Your task to perform on an android device: choose inbox layout in the gmail app Image 0: 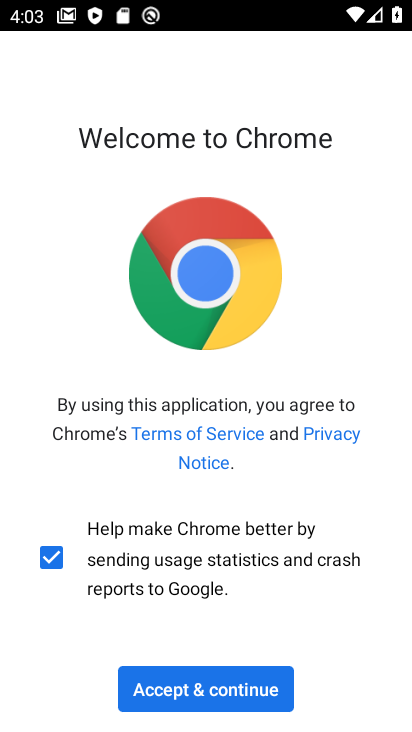
Step 0: press home button
Your task to perform on an android device: choose inbox layout in the gmail app Image 1: 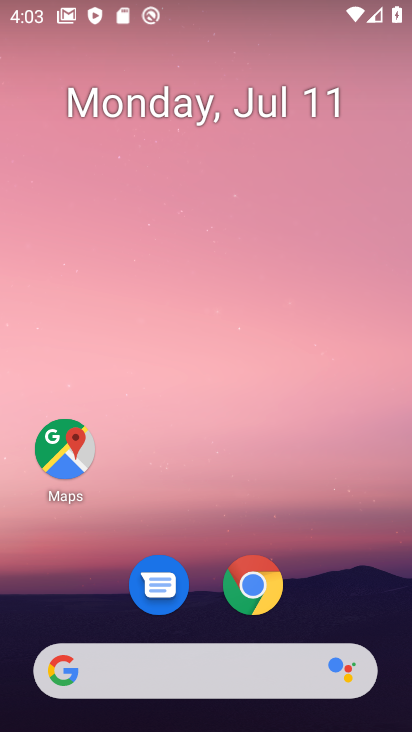
Step 1: drag from (345, 557) to (374, 29)
Your task to perform on an android device: choose inbox layout in the gmail app Image 2: 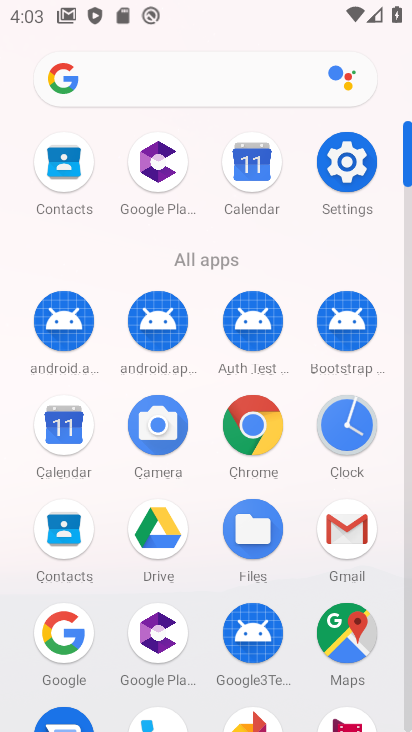
Step 2: click (336, 523)
Your task to perform on an android device: choose inbox layout in the gmail app Image 3: 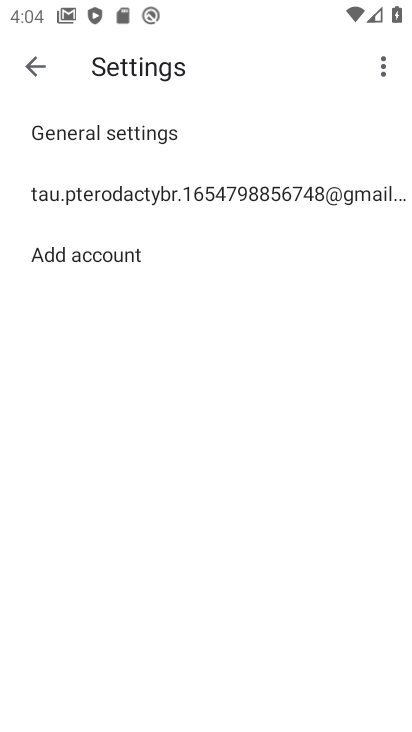
Step 3: click (221, 193)
Your task to perform on an android device: choose inbox layout in the gmail app Image 4: 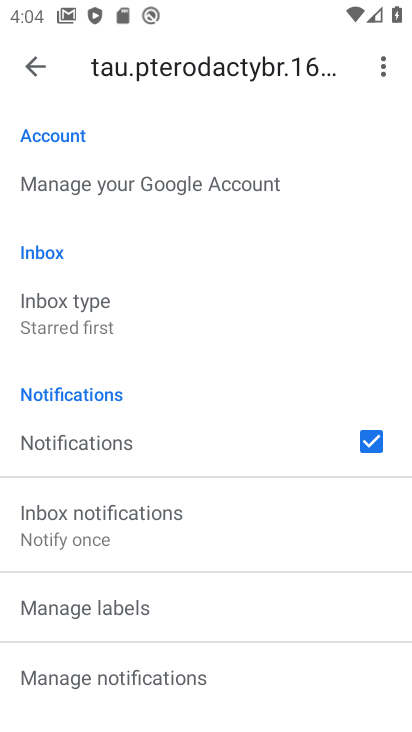
Step 4: click (91, 307)
Your task to perform on an android device: choose inbox layout in the gmail app Image 5: 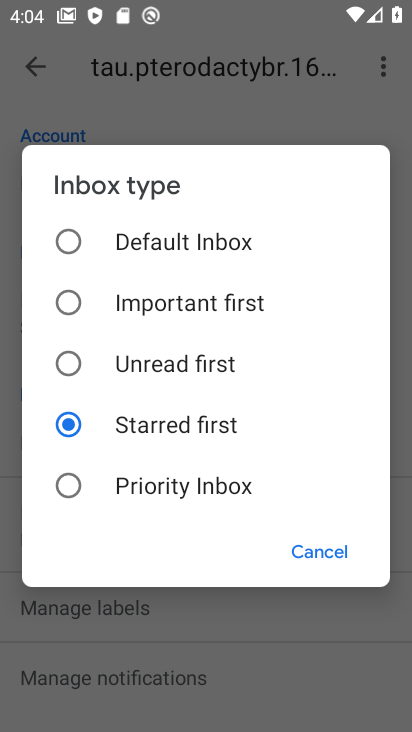
Step 5: click (137, 231)
Your task to perform on an android device: choose inbox layout in the gmail app Image 6: 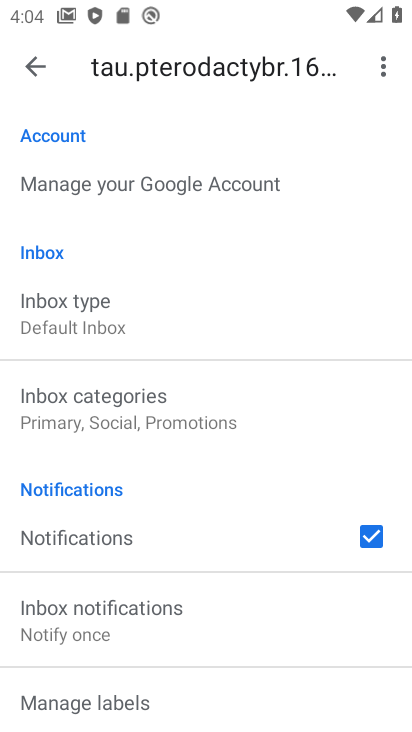
Step 6: task complete